Your task to perform on an android device: turn notification dots off Image 0: 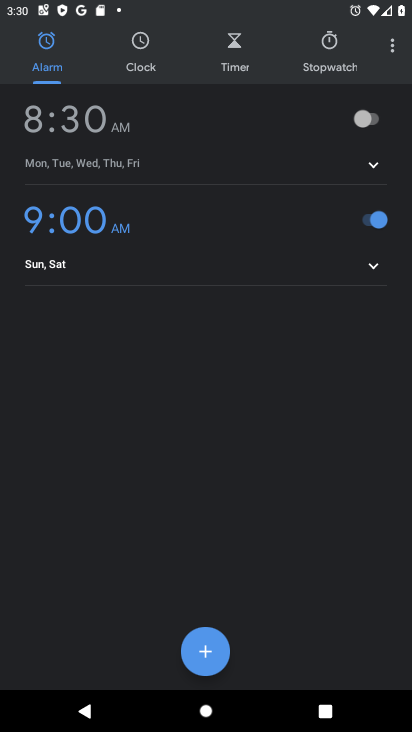
Step 0: press home button
Your task to perform on an android device: turn notification dots off Image 1: 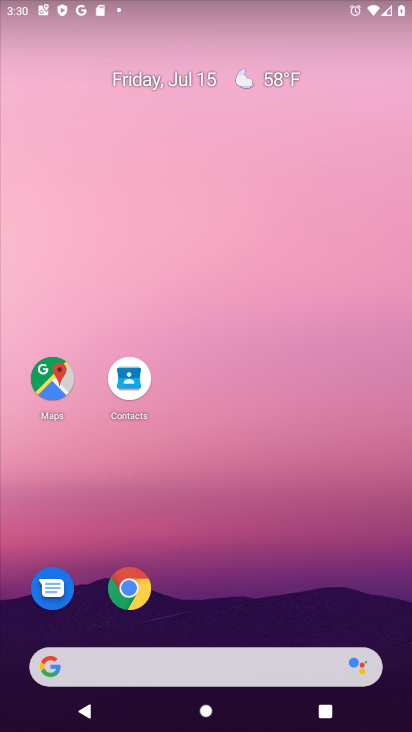
Step 1: drag from (245, 626) to (269, 3)
Your task to perform on an android device: turn notification dots off Image 2: 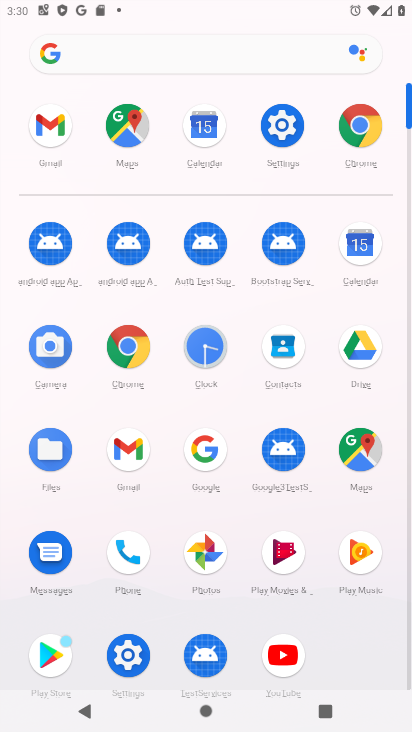
Step 2: click (267, 163)
Your task to perform on an android device: turn notification dots off Image 3: 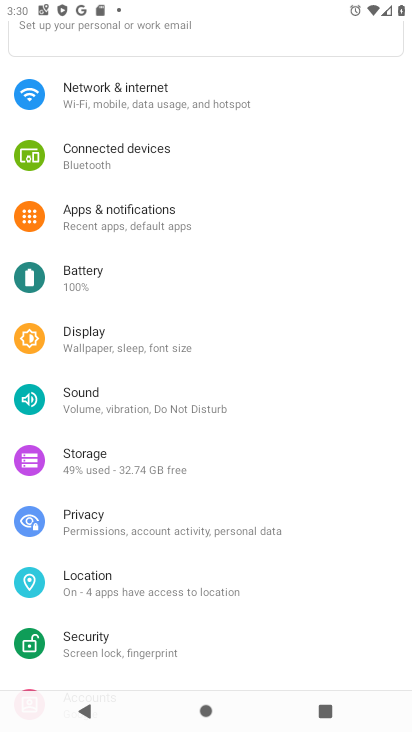
Step 3: click (191, 209)
Your task to perform on an android device: turn notification dots off Image 4: 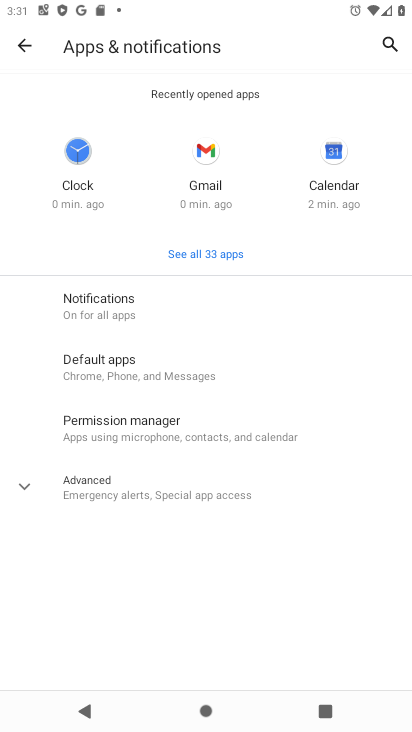
Step 4: click (87, 475)
Your task to perform on an android device: turn notification dots off Image 5: 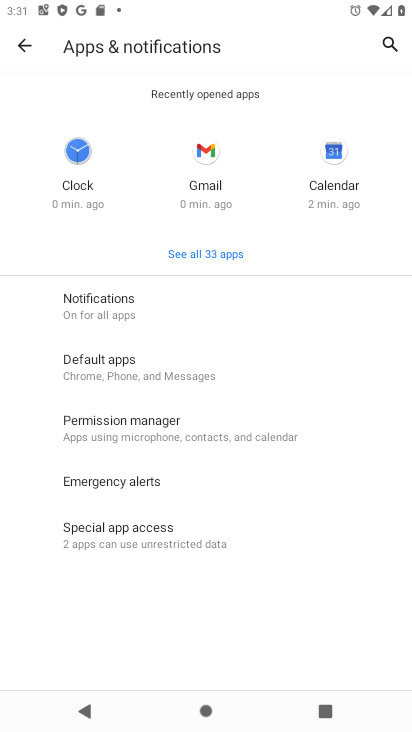
Step 5: click (143, 292)
Your task to perform on an android device: turn notification dots off Image 6: 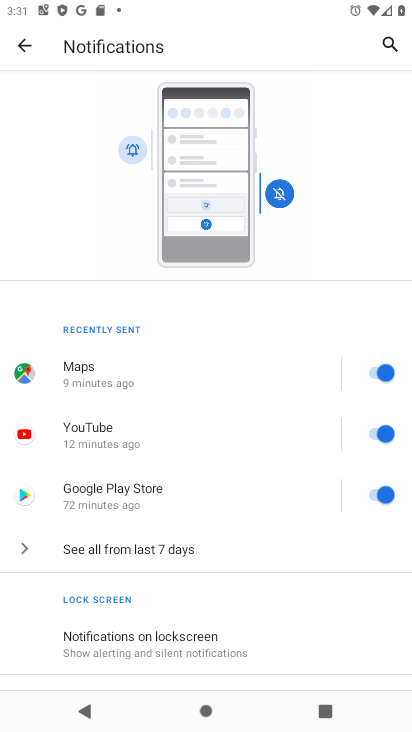
Step 6: drag from (210, 596) to (194, 262)
Your task to perform on an android device: turn notification dots off Image 7: 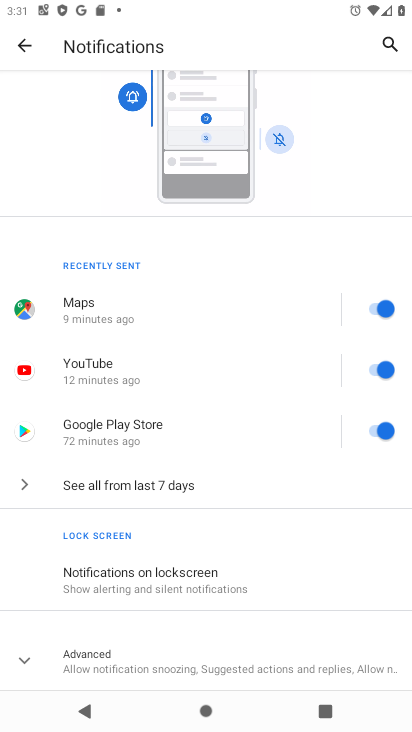
Step 7: click (199, 642)
Your task to perform on an android device: turn notification dots off Image 8: 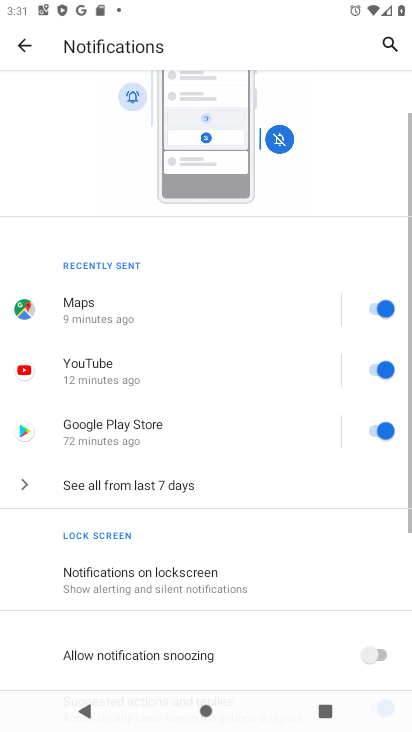
Step 8: drag from (223, 628) to (244, 329)
Your task to perform on an android device: turn notification dots off Image 9: 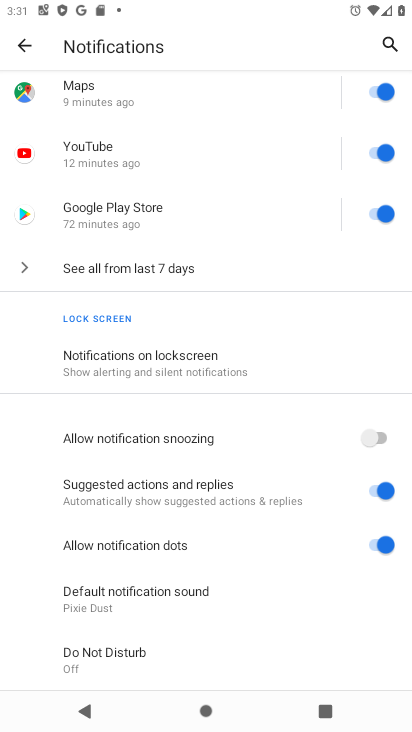
Step 9: click (377, 540)
Your task to perform on an android device: turn notification dots off Image 10: 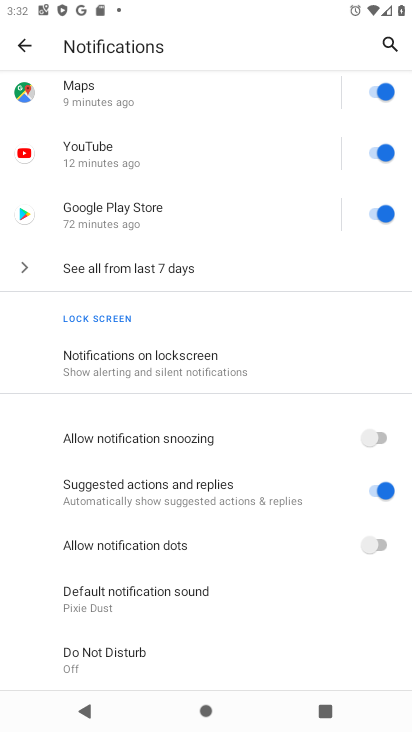
Step 10: task complete